Your task to perform on an android device: turn pop-ups on in chrome Image 0: 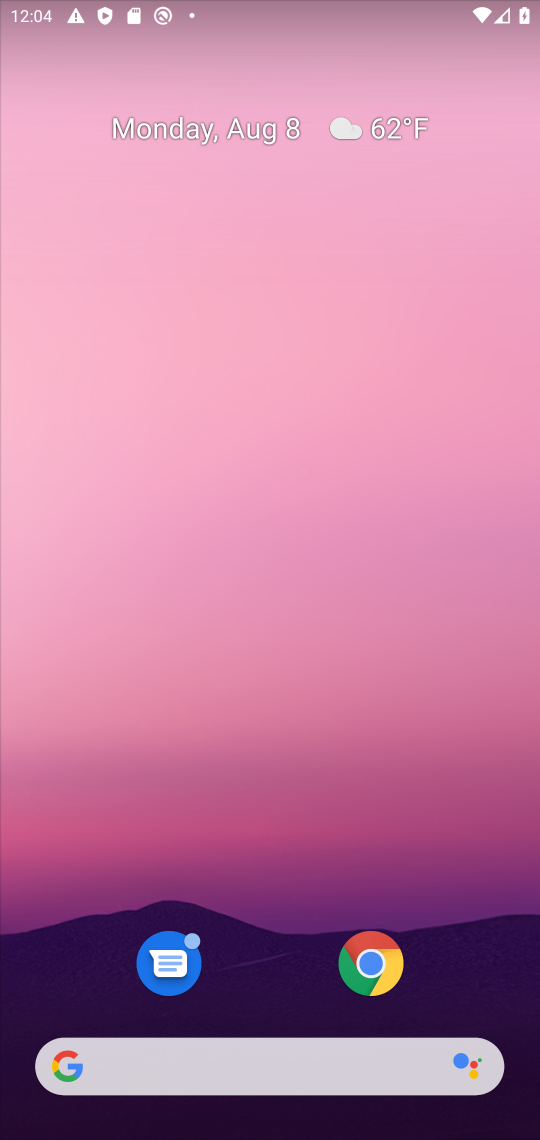
Step 0: drag from (449, 870) to (239, 3)
Your task to perform on an android device: turn pop-ups on in chrome Image 1: 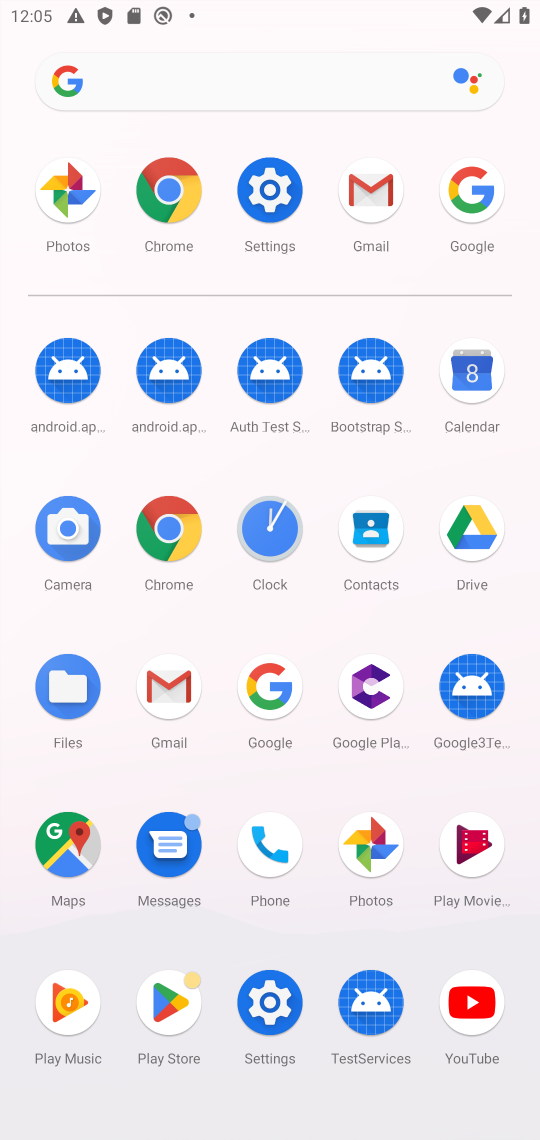
Step 1: click (195, 526)
Your task to perform on an android device: turn pop-ups on in chrome Image 2: 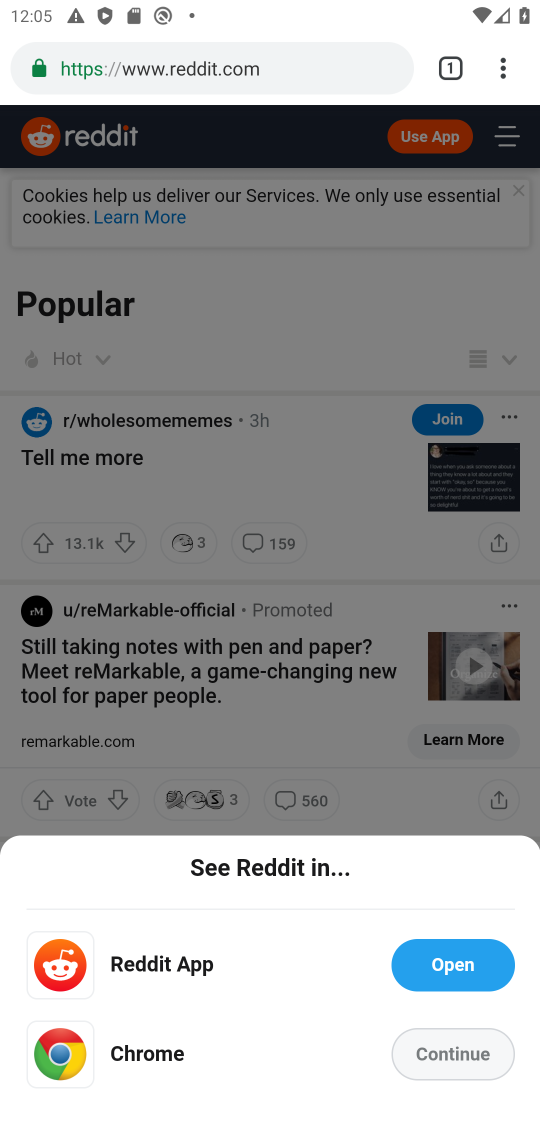
Step 2: click (505, 70)
Your task to perform on an android device: turn pop-ups on in chrome Image 3: 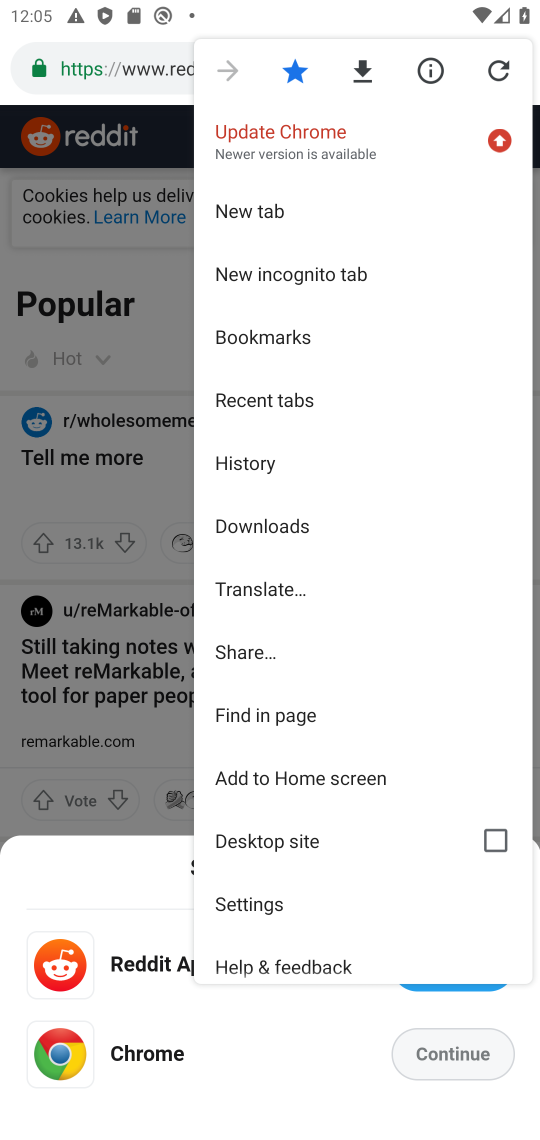
Step 3: click (270, 925)
Your task to perform on an android device: turn pop-ups on in chrome Image 4: 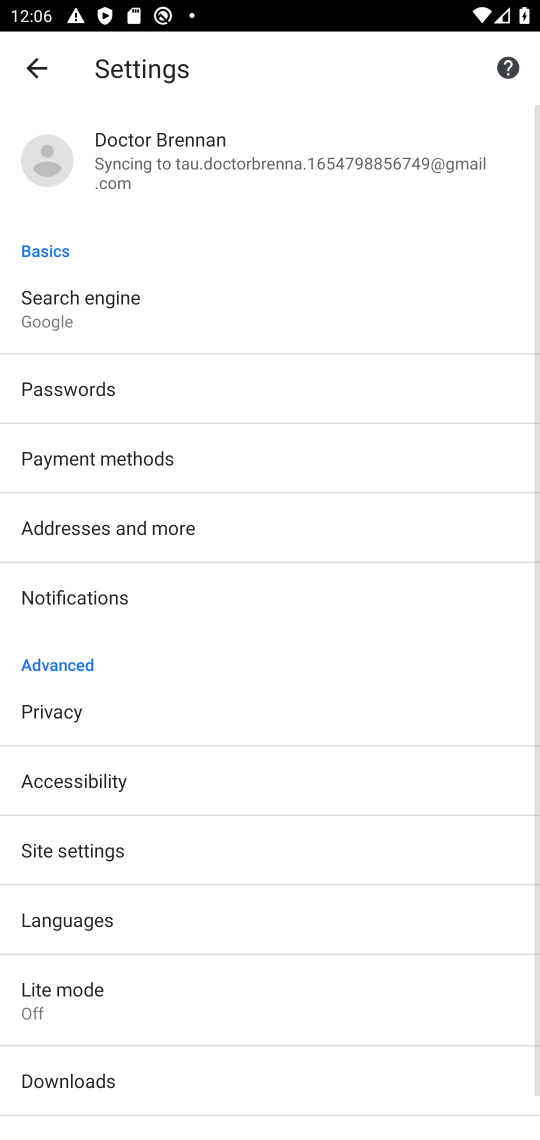
Step 4: click (58, 860)
Your task to perform on an android device: turn pop-ups on in chrome Image 5: 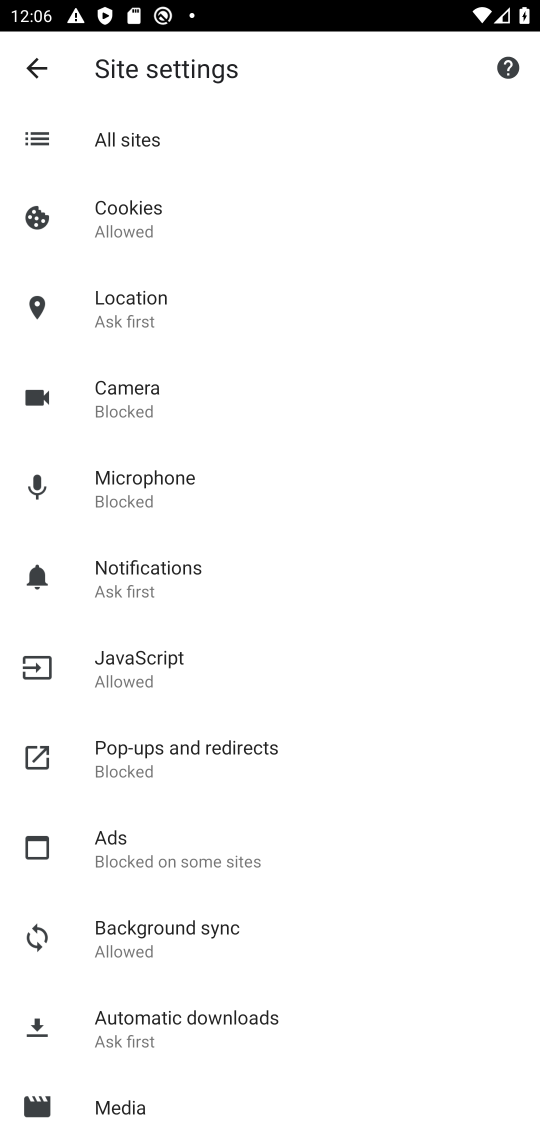
Step 5: click (239, 760)
Your task to perform on an android device: turn pop-ups on in chrome Image 6: 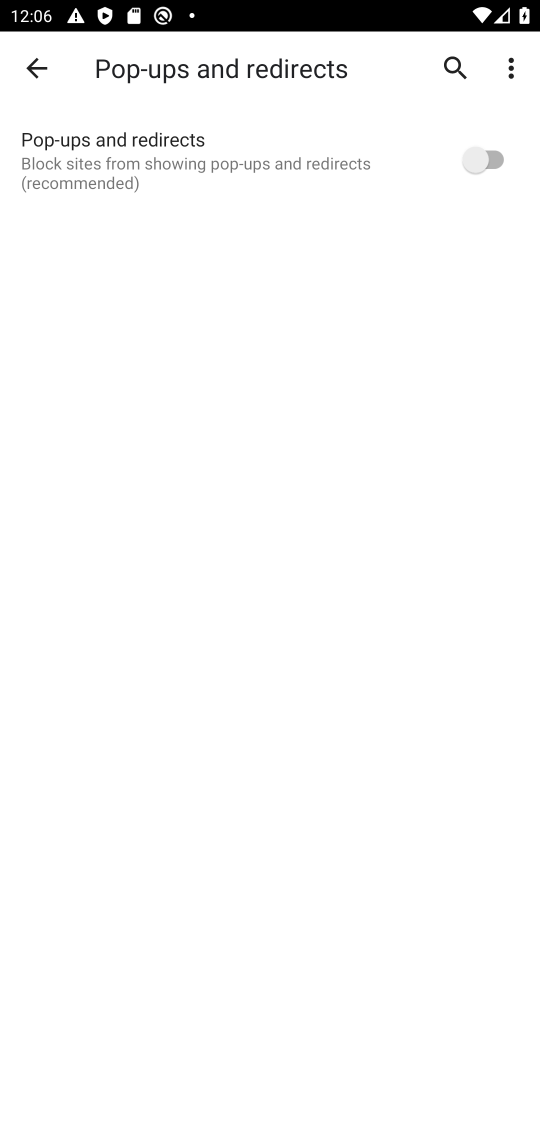
Step 6: click (497, 122)
Your task to perform on an android device: turn pop-ups on in chrome Image 7: 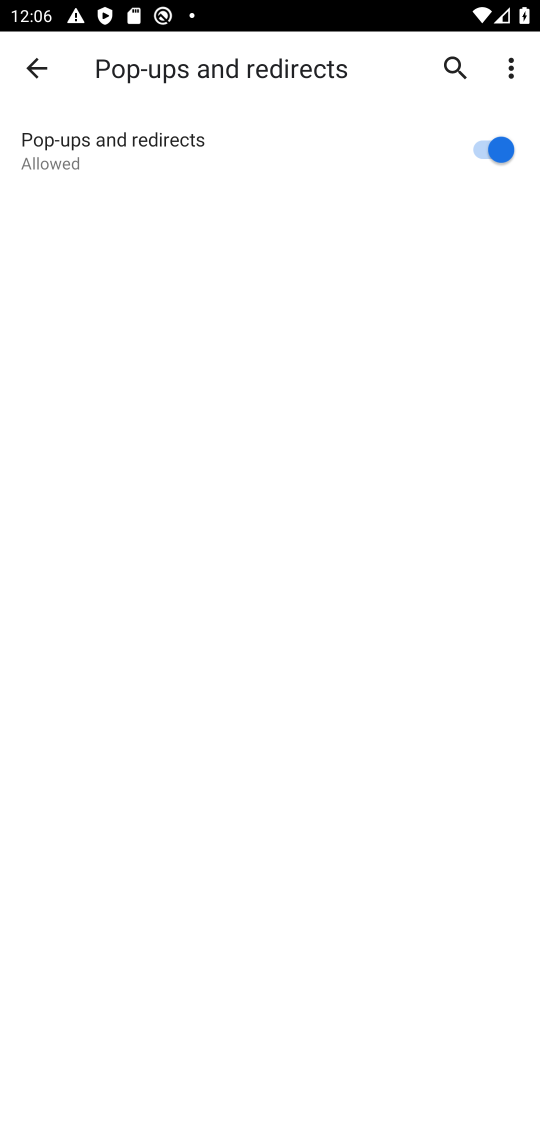
Step 7: task complete